Your task to perform on an android device: Go to Google maps Image 0: 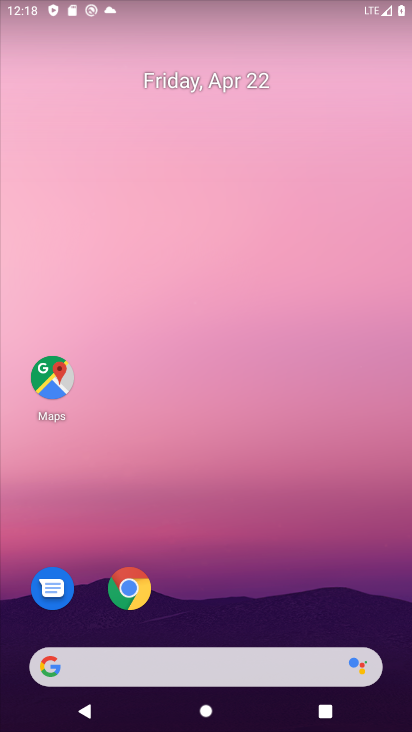
Step 0: drag from (241, 691) to (356, 137)
Your task to perform on an android device: Go to Google maps Image 1: 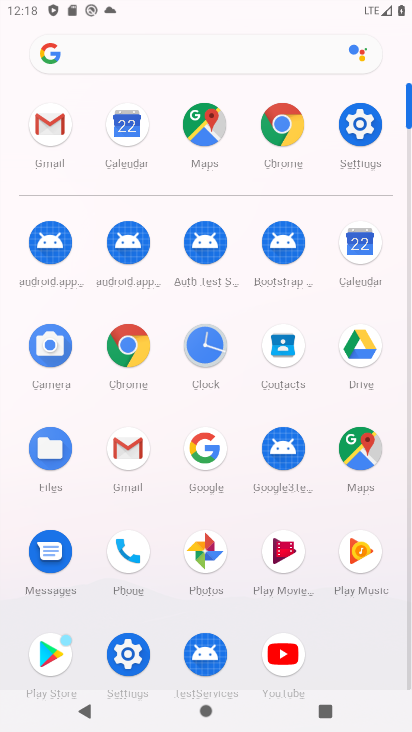
Step 1: click (216, 129)
Your task to perform on an android device: Go to Google maps Image 2: 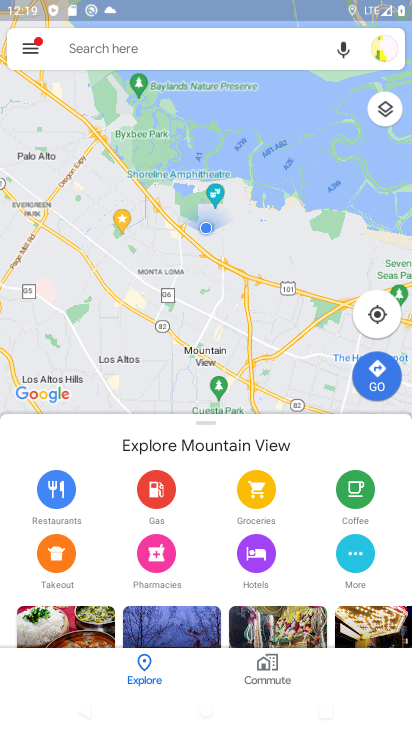
Step 2: click (365, 317)
Your task to perform on an android device: Go to Google maps Image 3: 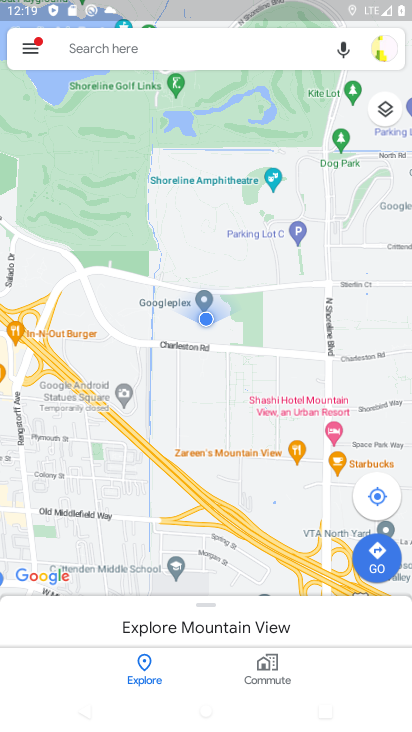
Step 3: task complete